Your task to perform on an android device: Go to sound settings Image 0: 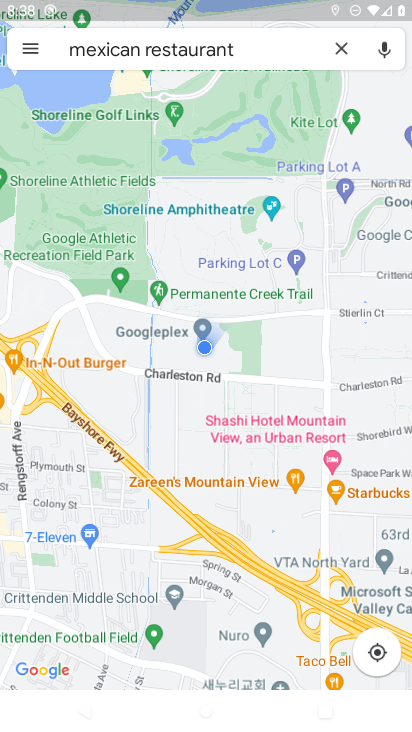
Step 0: press home button
Your task to perform on an android device: Go to sound settings Image 1: 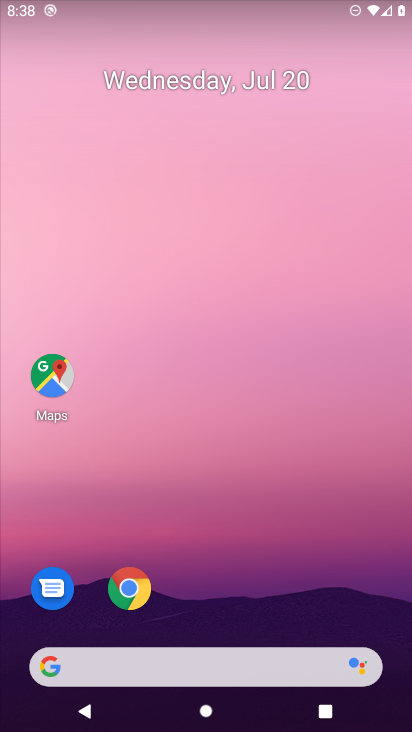
Step 1: drag from (19, 701) to (294, 1)
Your task to perform on an android device: Go to sound settings Image 2: 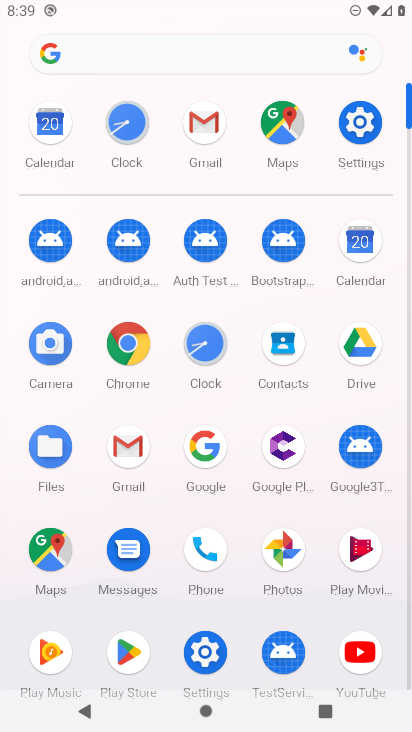
Step 2: click (215, 660)
Your task to perform on an android device: Go to sound settings Image 3: 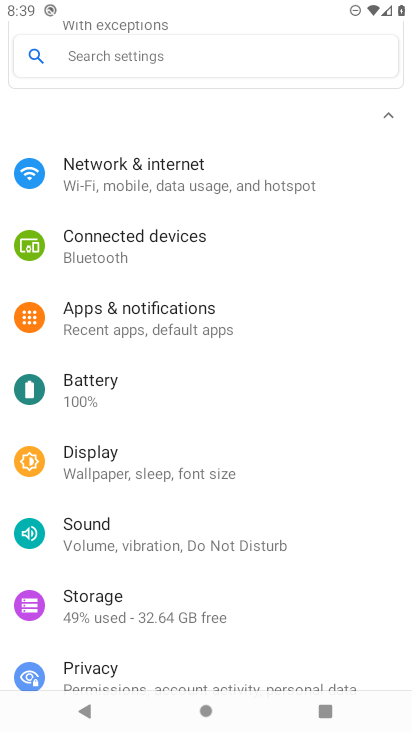
Step 3: click (113, 531)
Your task to perform on an android device: Go to sound settings Image 4: 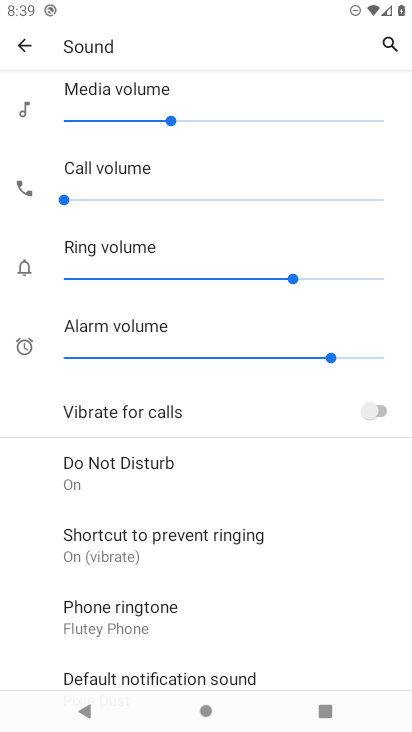
Step 4: task complete